Your task to perform on an android device: delete browsing data in the chrome app Image 0: 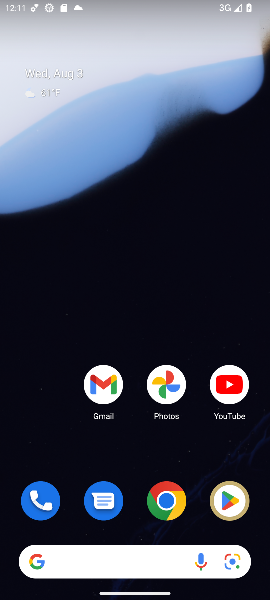
Step 0: click (173, 507)
Your task to perform on an android device: delete browsing data in the chrome app Image 1: 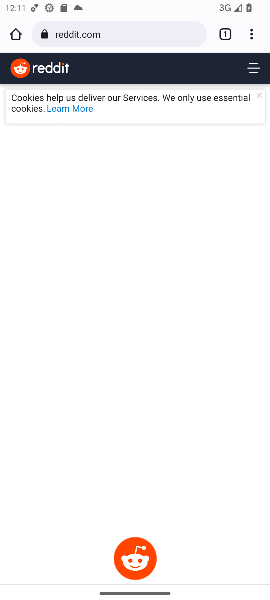
Step 1: click (247, 32)
Your task to perform on an android device: delete browsing data in the chrome app Image 2: 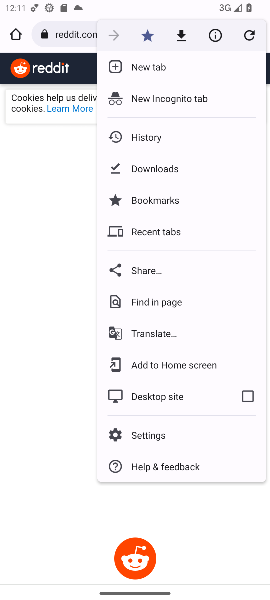
Step 2: click (157, 140)
Your task to perform on an android device: delete browsing data in the chrome app Image 3: 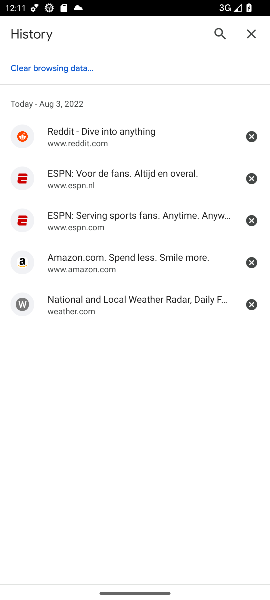
Step 3: click (69, 64)
Your task to perform on an android device: delete browsing data in the chrome app Image 4: 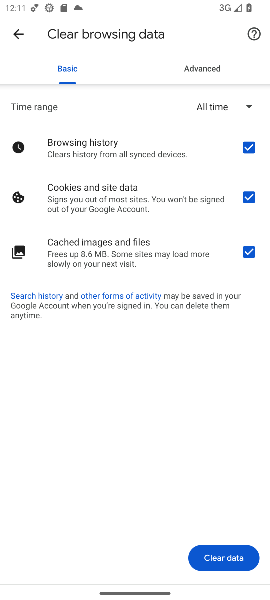
Step 4: click (218, 560)
Your task to perform on an android device: delete browsing data in the chrome app Image 5: 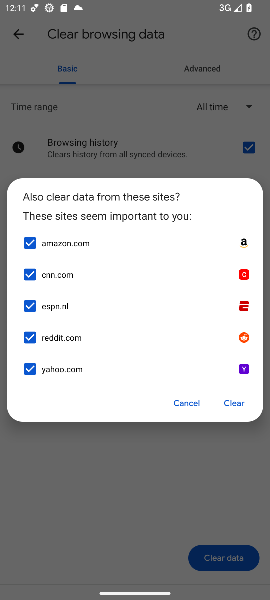
Step 5: click (238, 402)
Your task to perform on an android device: delete browsing data in the chrome app Image 6: 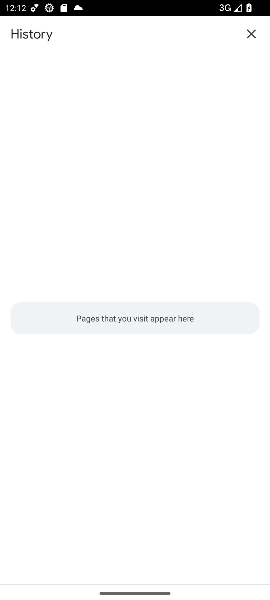
Step 6: task complete